Your task to perform on an android device: turn on javascript in the chrome app Image 0: 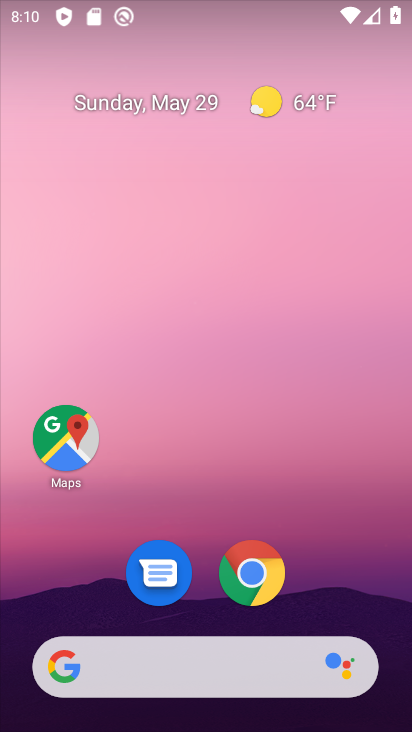
Step 0: click (264, 589)
Your task to perform on an android device: turn on javascript in the chrome app Image 1: 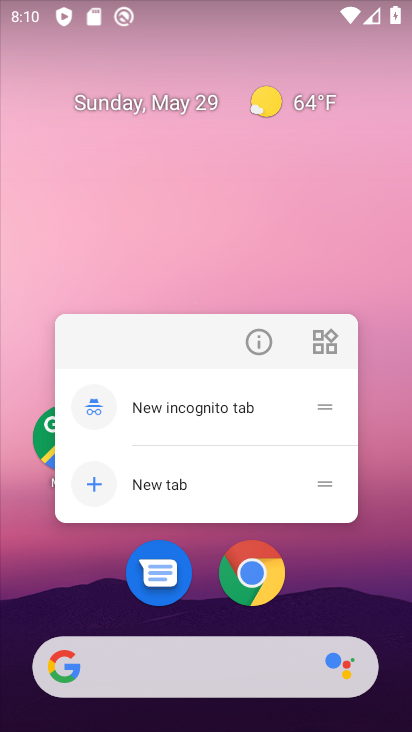
Step 1: click (255, 581)
Your task to perform on an android device: turn on javascript in the chrome app Image 2: 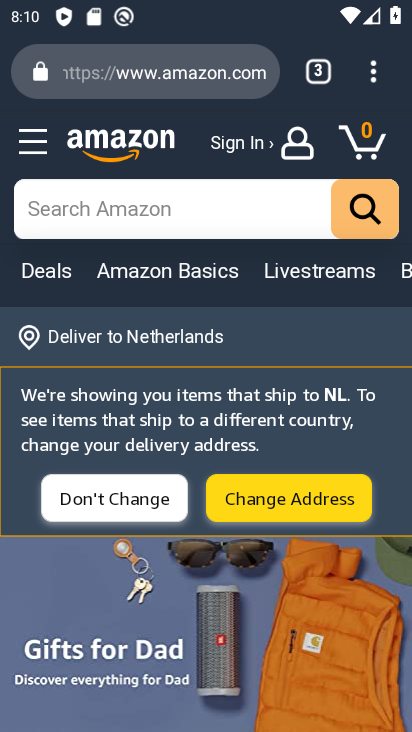
Step 2: drag from (369, 78) to (220, 551)
Your task to perform on an android device: turn on javascript in the chrome app Image 3: 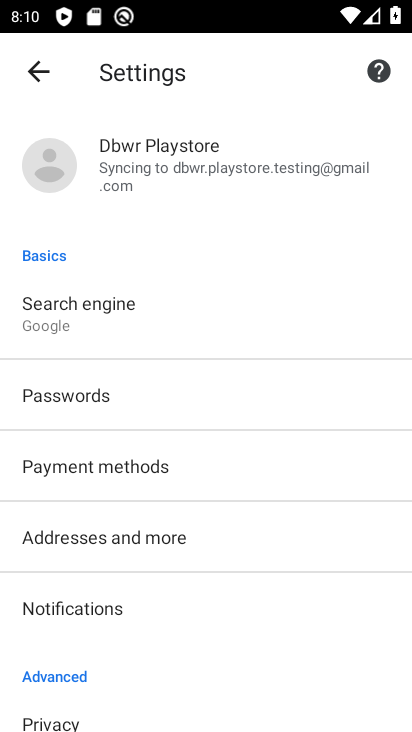
Step 3: drag from (139, 664) to (264, 355)
Your task to perform on an android device: turn on javascript in the chrome app Image 4: 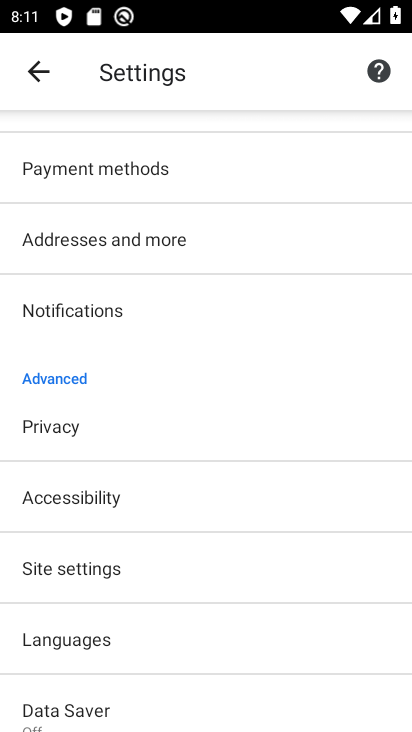
Step 4: click (149, 581)
Your task to perform on an android device: turn on javascript in the chrome app Image 5: 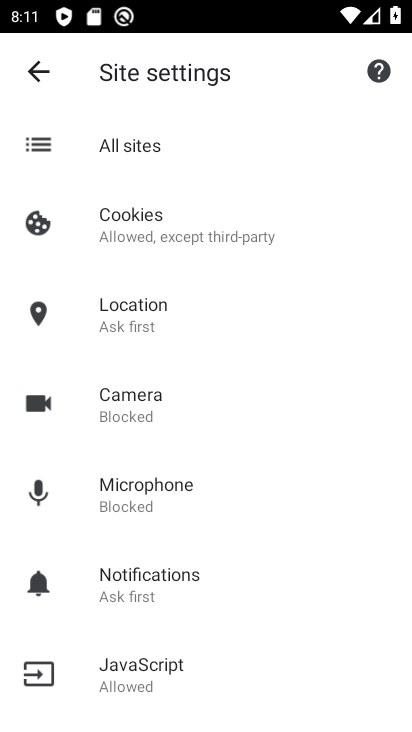
Step 5: click (190, 669)
Your task to perform on an android device: turn on javascript in the chrome app Image 6: 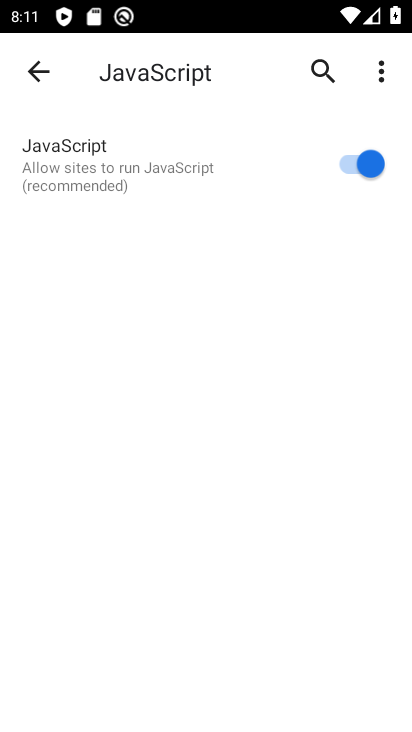
Step 6: task complete